Your task to perform on an android device: toggle pop-ups in chrome Image 0: 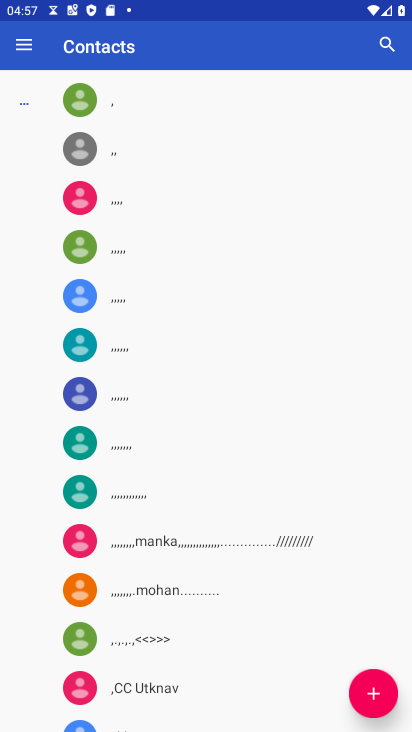
Step 0: press home button
Your task to perform on an android device: toggle pop-ups in chrome Image 1: 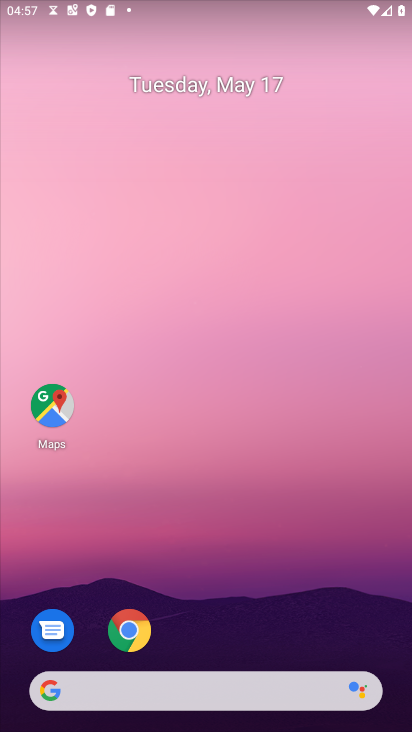
Step 1: click (128, 629)
Your task to perform on an android device: toggle pop-ups in chrome Image 2: 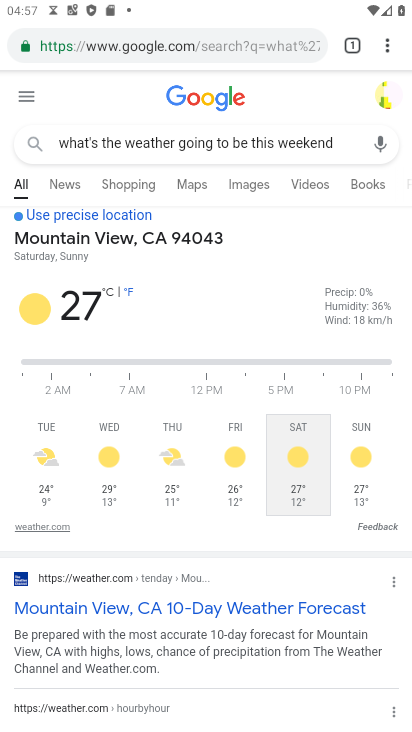
Step 2: drag from (384, 38) to (239, 500)
Your task to perform on an android device: toggle pop-ups in chrome Image 3: 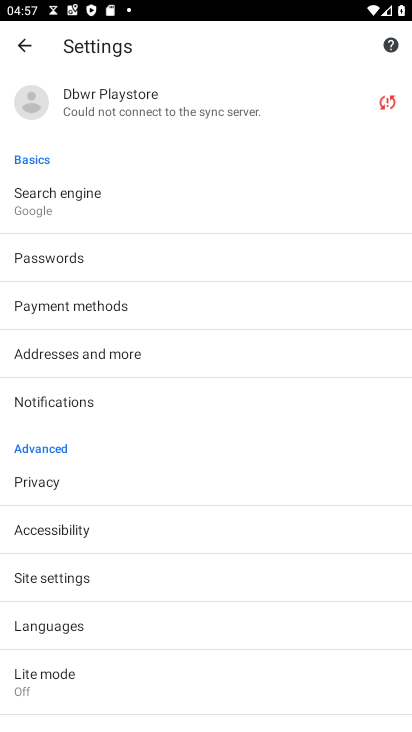
Step 3: drag from (216, 494) to (229, 320)
Your task to perform on an android device: toggle pop-ups in chrome Image 4: 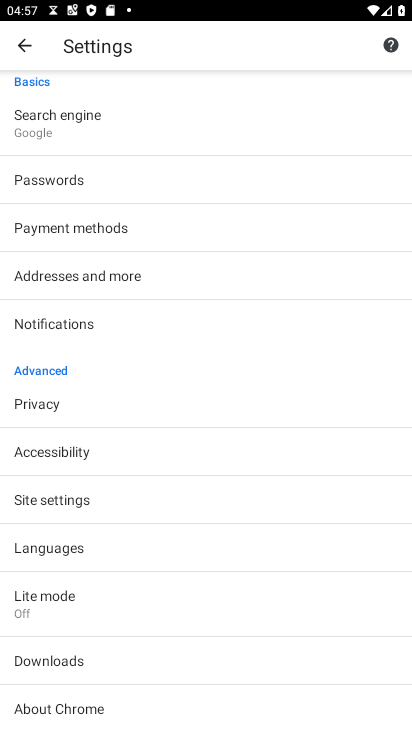
Step 4: click (51, 498)
Your task to perform on an android device: toggle pop-ups in chrome Image 5: 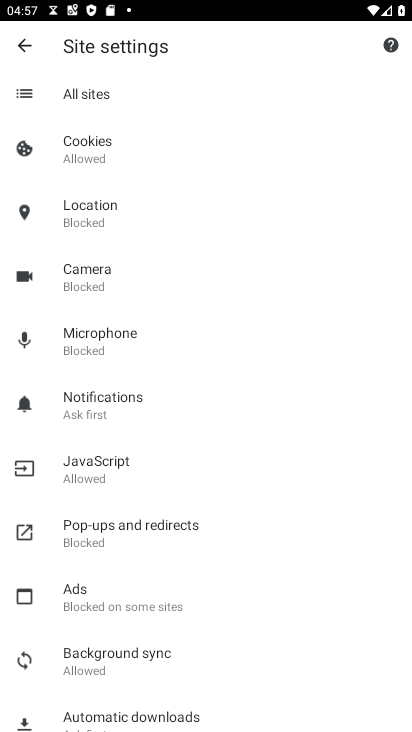
Step 5: click (180, 533)
Your task to perform on an android device: toggle pop-ups in chrome Image 6: 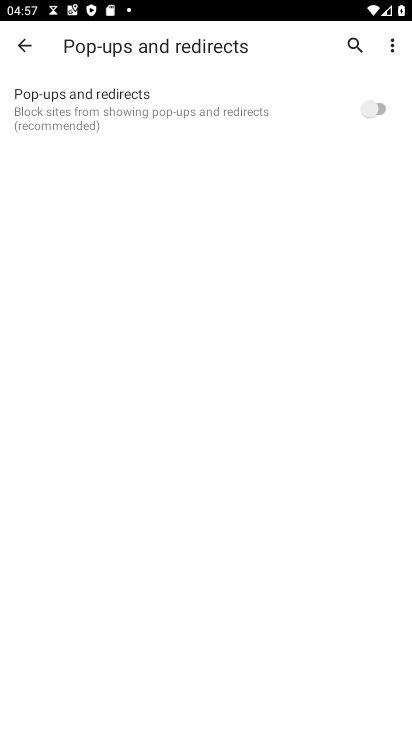
Step 6: click (373, 108)
Your task to perform on an android device: toggle pop-ups in chrome Image 7: 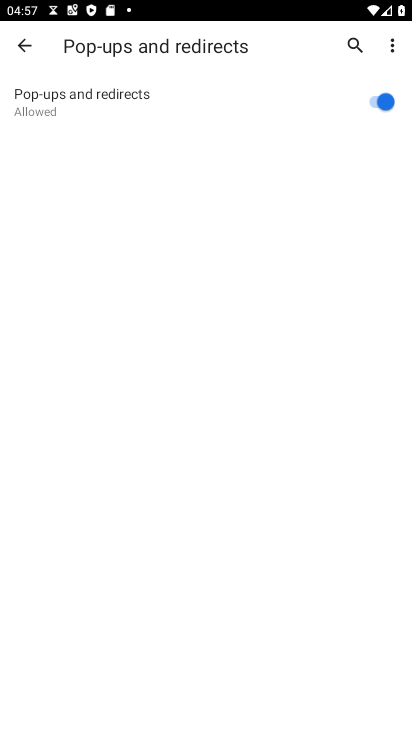
Step 7: task complete